Your task to perform on an android device: open app "Duolingo: language lessons" (install if not already installed) and go to login screen Image 0: 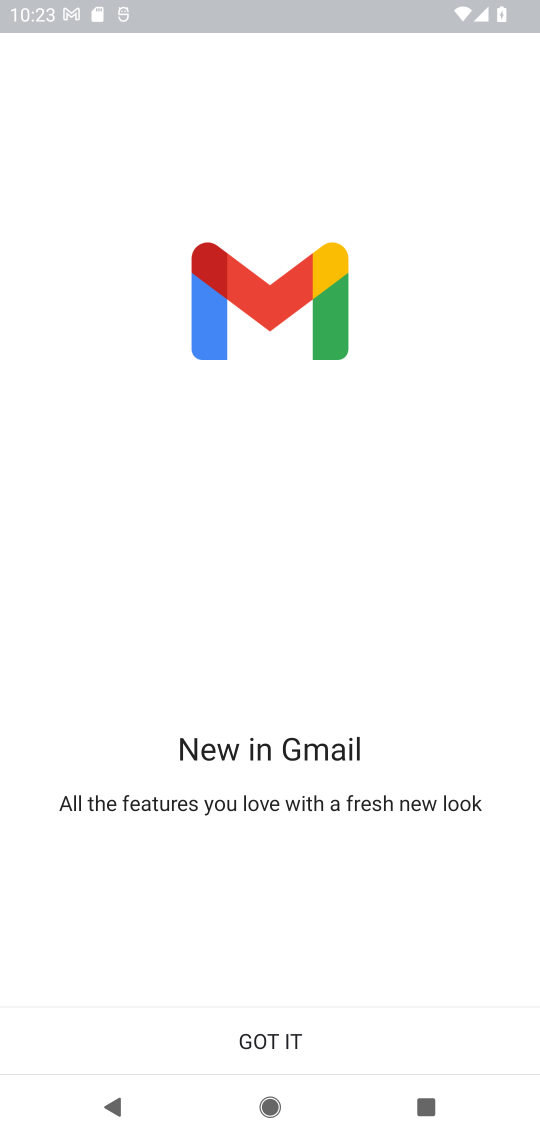
Step 0: press home button
Your task to perform on an android device: open app "Duolingo: language lessons" (install if not already installed) and go to login screen Image 1: 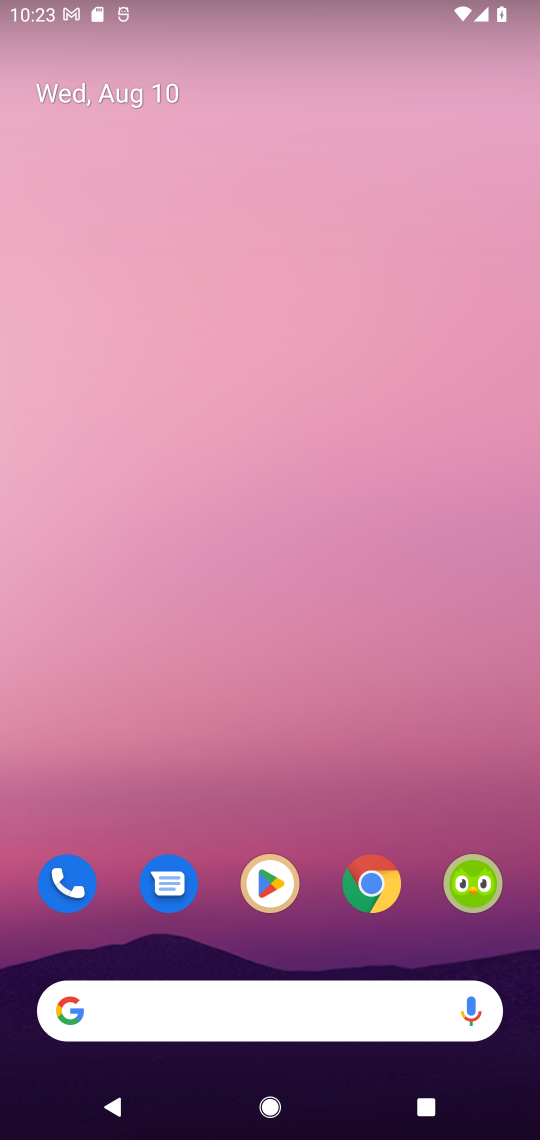
Step 1: click (480, 884)
Your task to perform on an android device: open app "Duolingo: language lessons" (install if not already installed) and go to login screen Image 2: 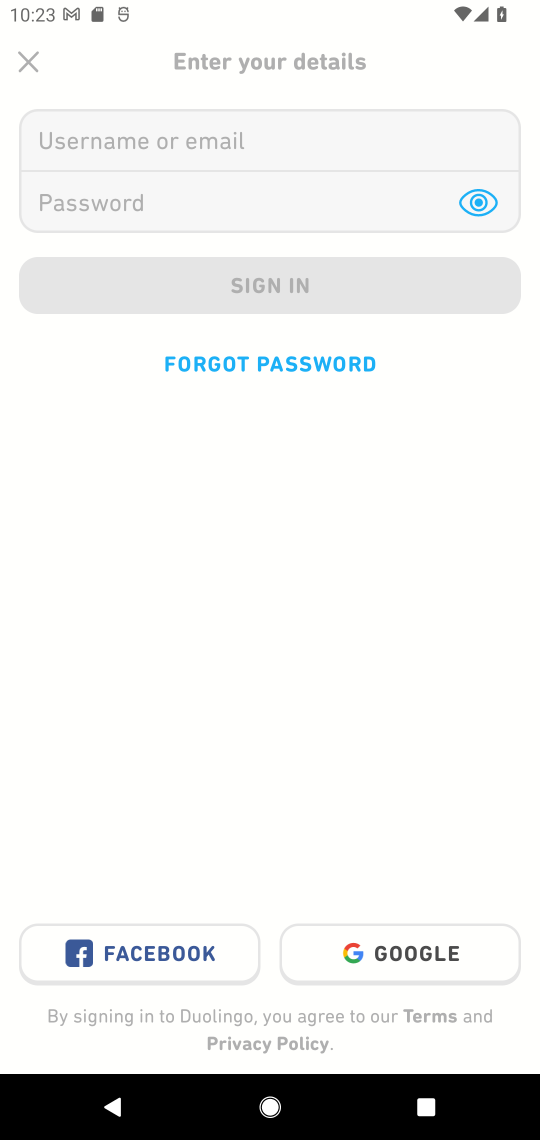
Step 2: task complete